Your task to perform on an android device: What is the news today? Image 0: 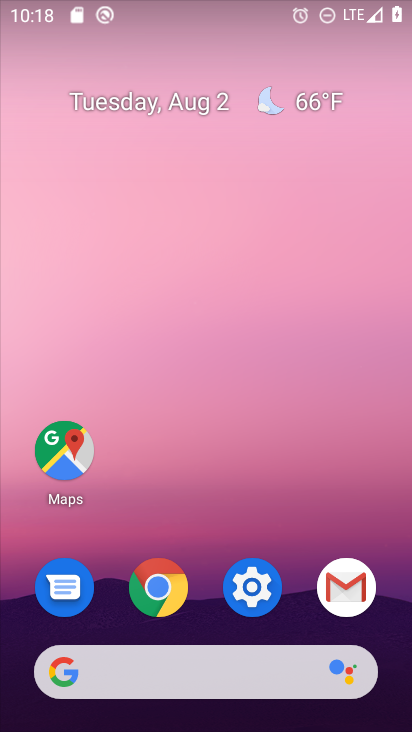
Step 0: click (187, 659)
Your task to perform on an android device: What is the news today? Image 1: 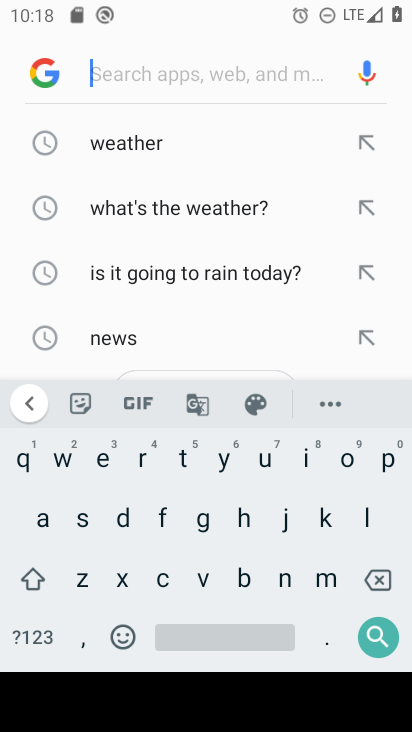
Step 1: click (114, 337)
Your task to perform on an android device: What is the news today? Image 2: 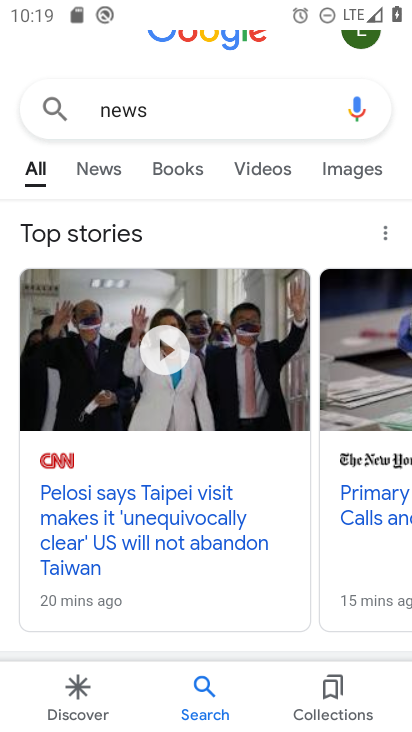
Step 2: task complete